Your task to perform on an android device: turn on translation in the chrome app Image 0: 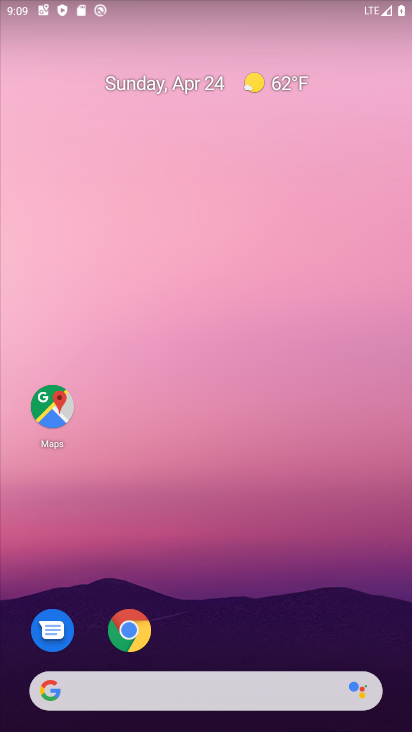
Step 0: drag from (211, 544) to (200, 14)
Your task to perform on an android device: turn on translation in the chrome app Image 1: 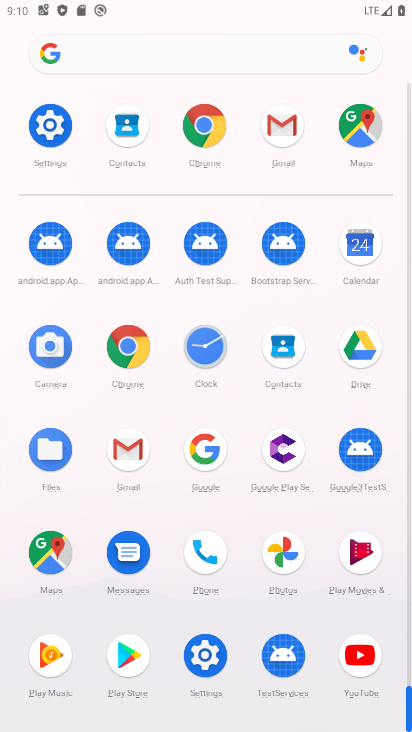
Step 1: drag from (13, 586) to (15, 339)
Your task to perform on an android device: turn on translation in the chrome app Image 2: 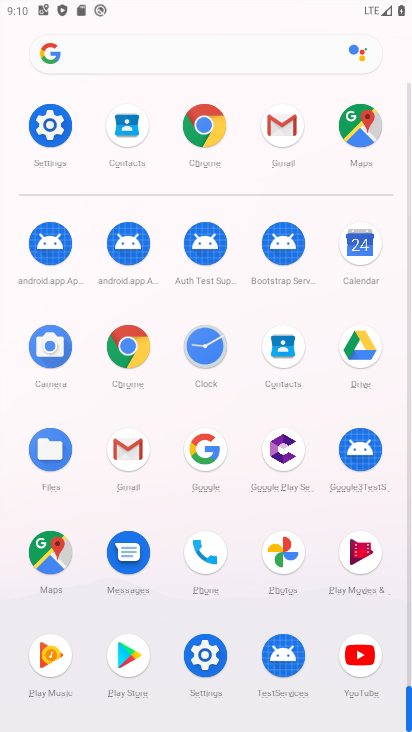
Step 2: click (198, 118)
Your task to perform on an android device: turn on translation in the chrome app Image 3: 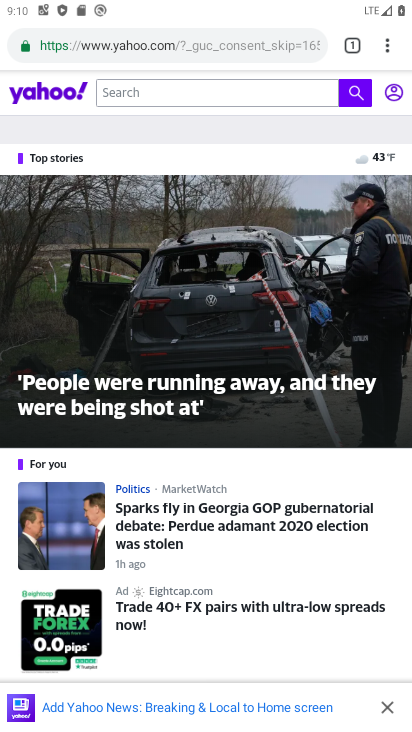
Step 3: drag from (392, 53) to (235, 605)
Your task to perform on an android device: turn on translation in the chrome app Image 4: 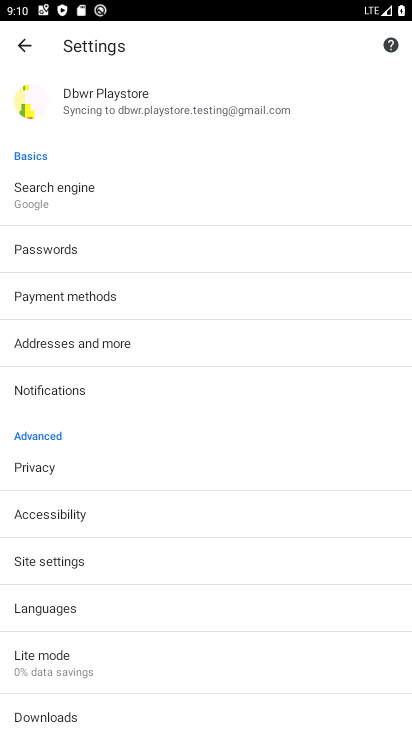
Step 4: click (73, 605)
Your task to perform on an android device: turn on translation in the chrome app Image 5: 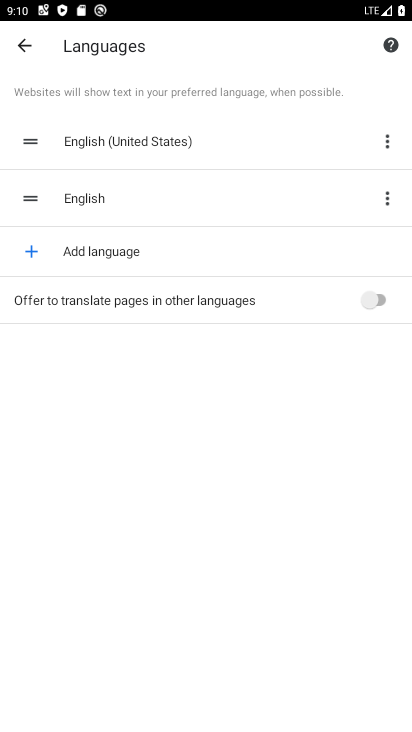
Step 5: click (380, 292)
Your task to perform on an android device: turn on translation in the chrome app Image 6: 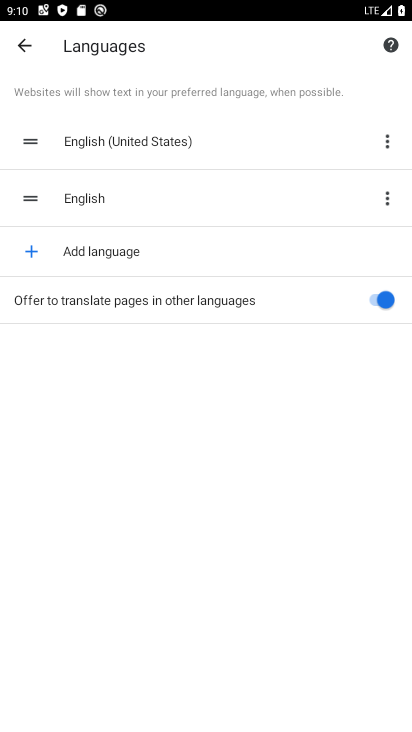
Step 6: task complete